Your task to perform on an android device: Search for seafood restaurants on Google Maps Image 0: 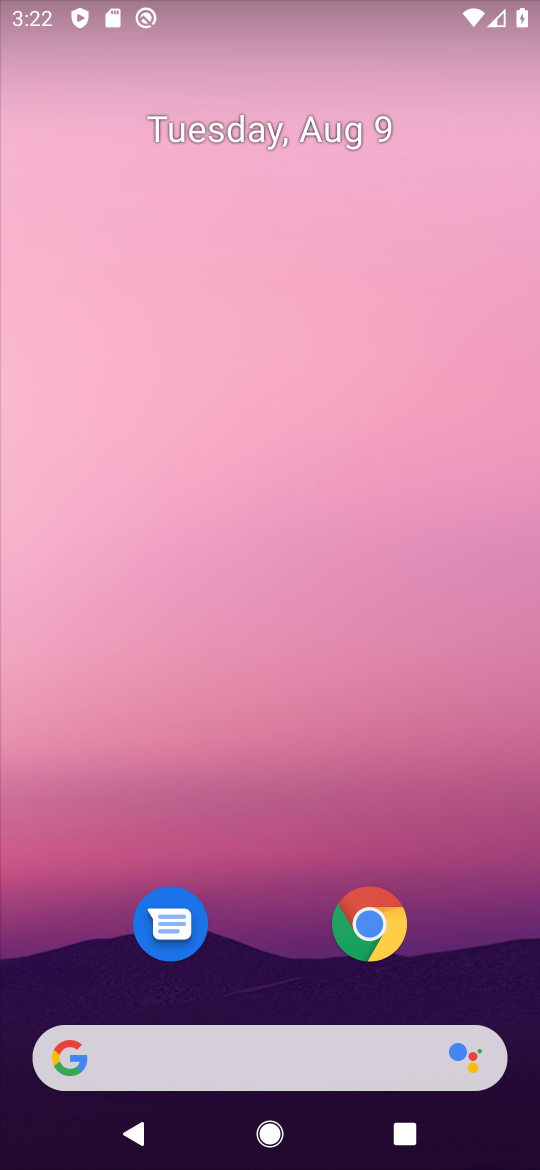
Step 0: drag from (245, 1073) to (325, 110)
Your task to perform on an android device: Search for seafood restaurants on Google Maps Image 1: 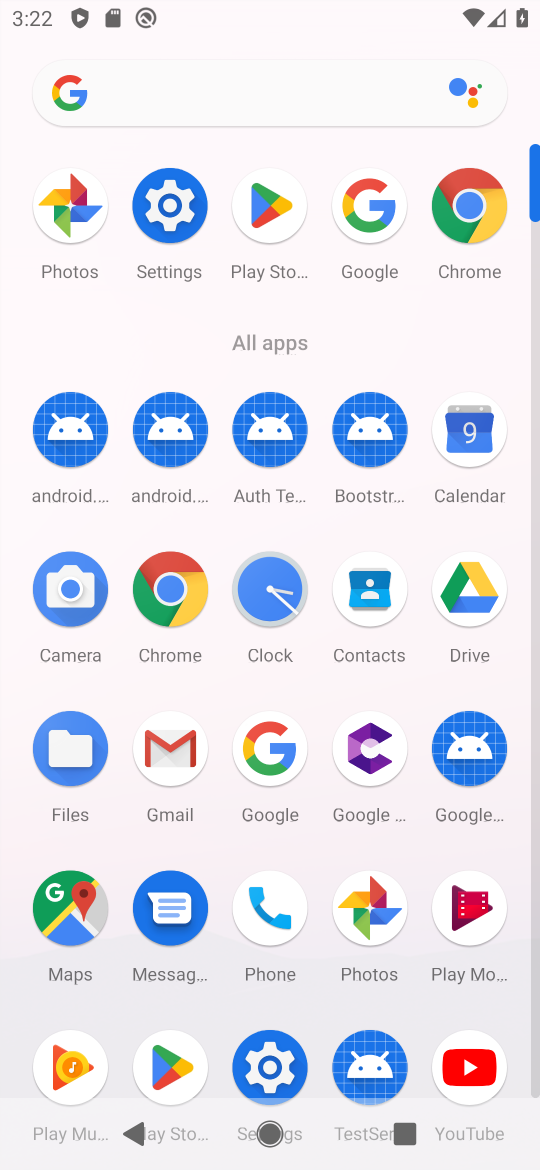
Step 1: click (75, 902)
Your task to perform on an android device: Search for seafood restaurants on Google Maps Image 2: 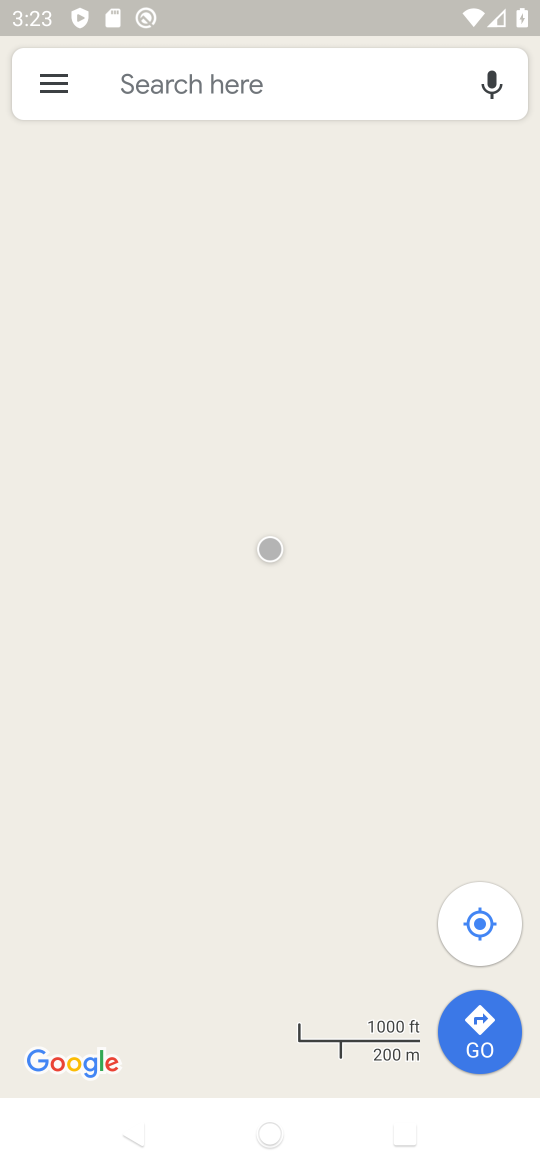
Step 2: click (324, 86)
Your task to perform on an android device: Search for seafood restaurants on Google Maps Image 3: 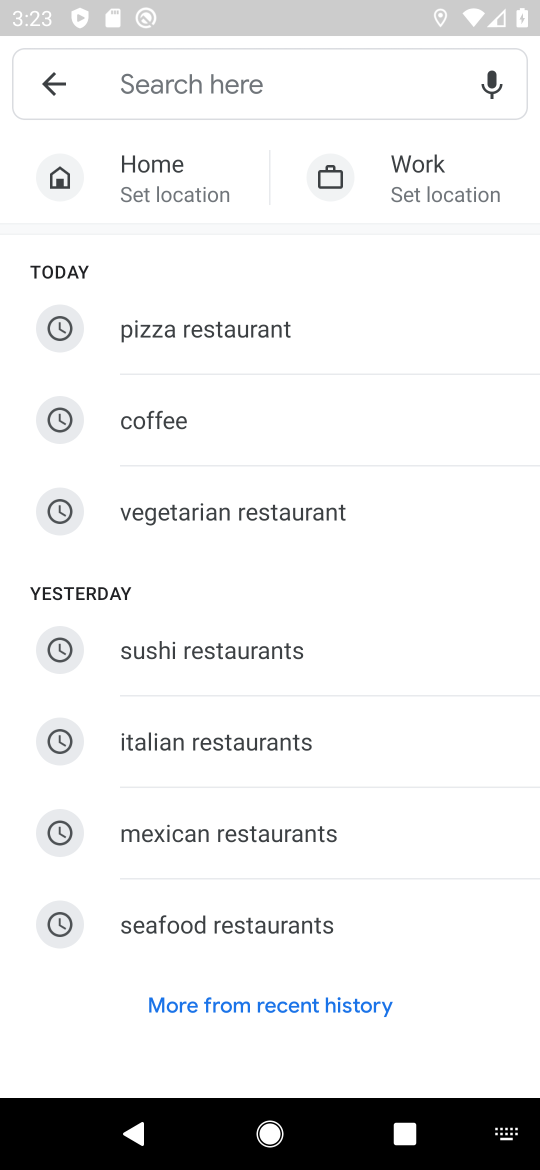
Step 3: type "seafood restaurants"
Your task to perform on an android device: Search for seafood restaurants on Google Maps Image 4: 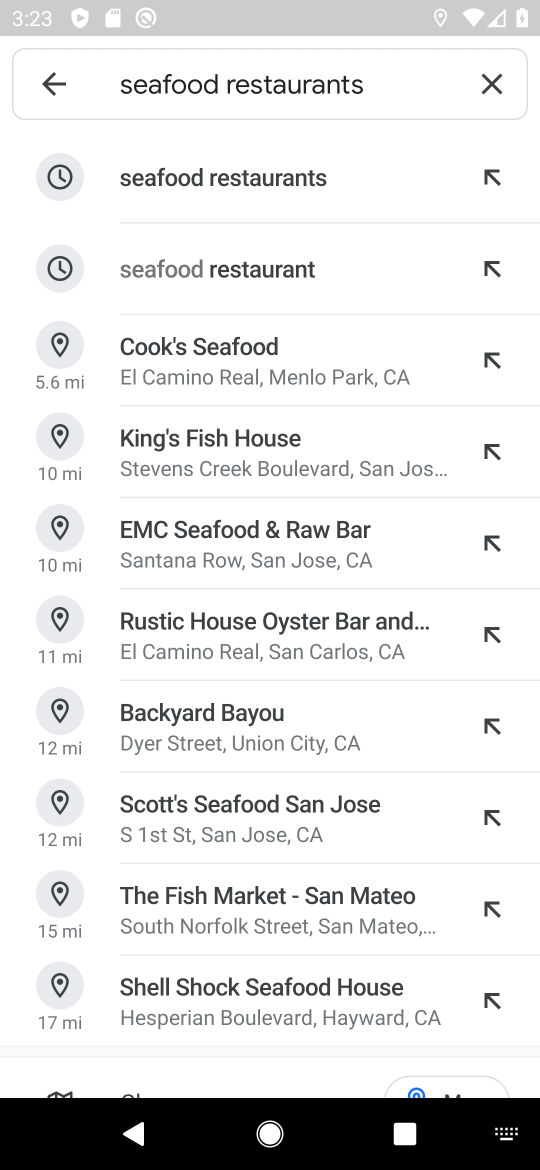
Step 4: click (276, 178)
Your task to perform on an android device: Search for seafood restaurants on Google Maps Image 5: 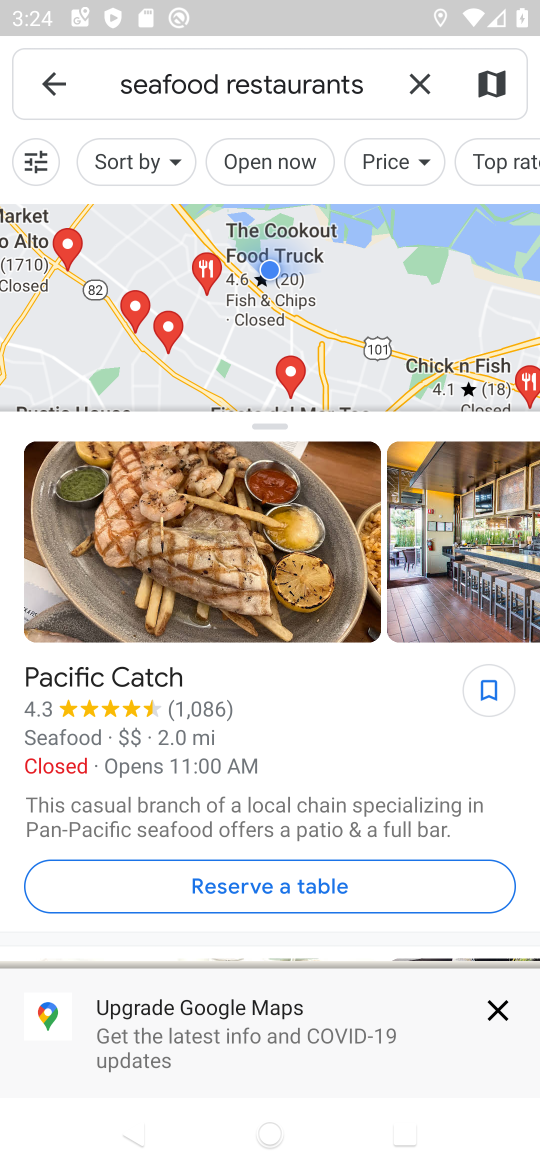
Step 5: task complete